Your task to perform on an android device: Open Google Chrome and open the bookmarks view Image 0: 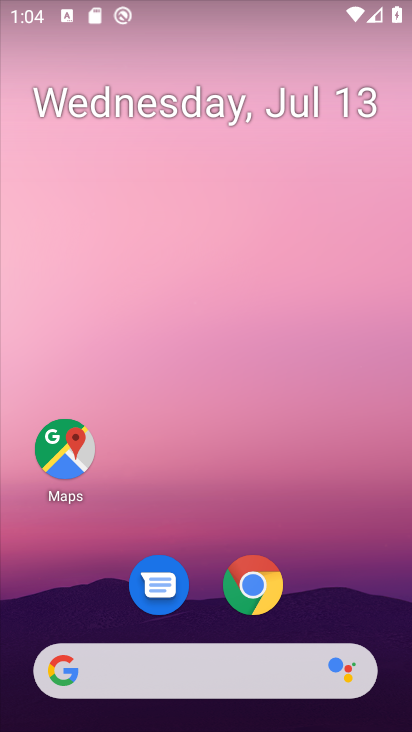
Step 0: click (246, 597)
Your task to perform on an android device: Open Google Chrome and open the bookmarks view Image 1: 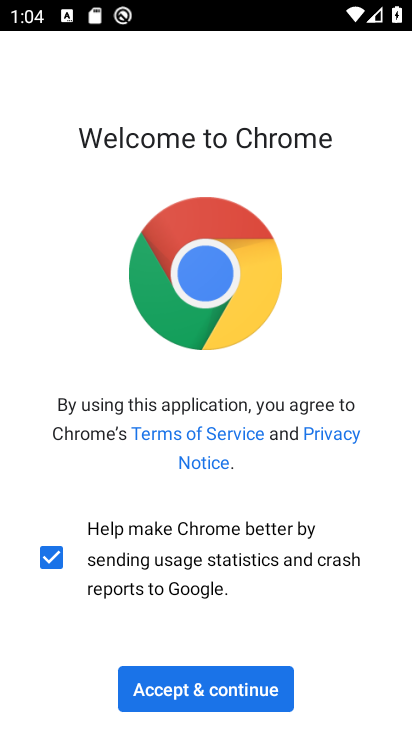
Step 1: click (250, 687)
Your task to perform on an android device: Open Google Chrome and open the bookmarks view Image 2: 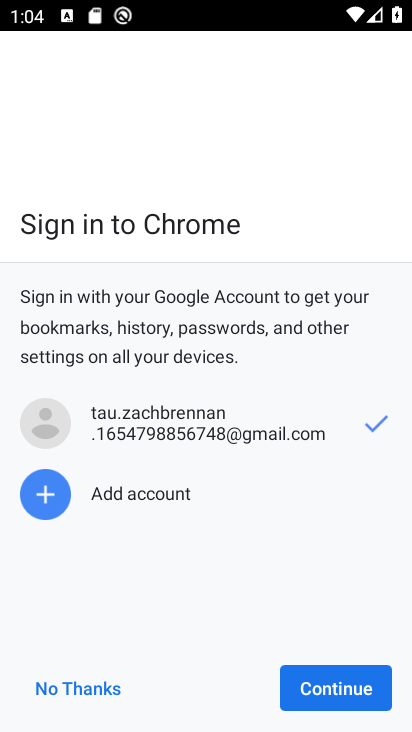
Step 2: click (303, 684)
Your task to perform on an android device: Open Google Chrome and open the bookmarks view Image 3: 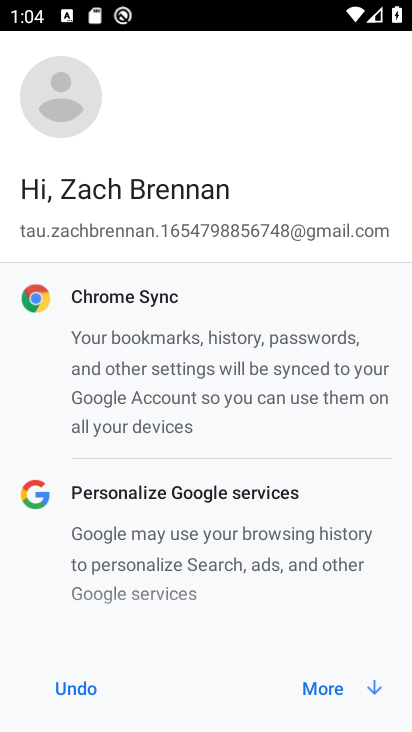
Step 3: click (316, 684)
Your task to perform on an android device: Open Google Chrome and open the bookmarks view Image 4: 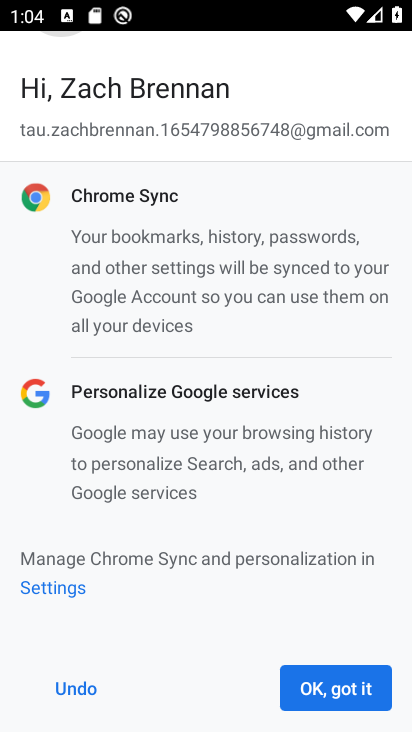
Step 4: click (316, 684)
Your task to perform on an android device: Open Google Chrome and open the bookmarks view Image 5: 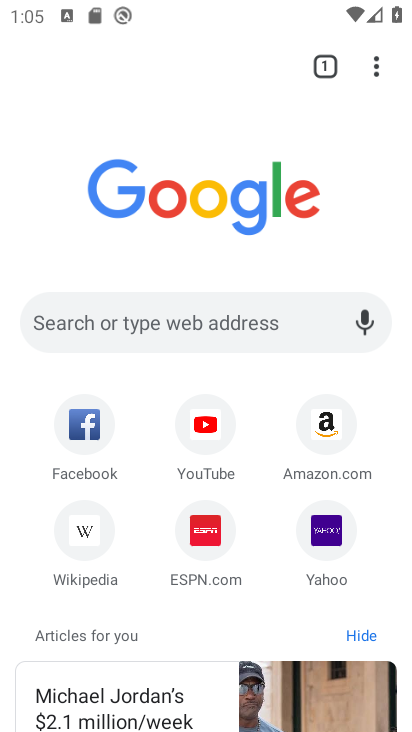
Step 5: click (374, 64)
Your task to perform on an android device: Open Google Chrome and open the bookmarks view Image 6: 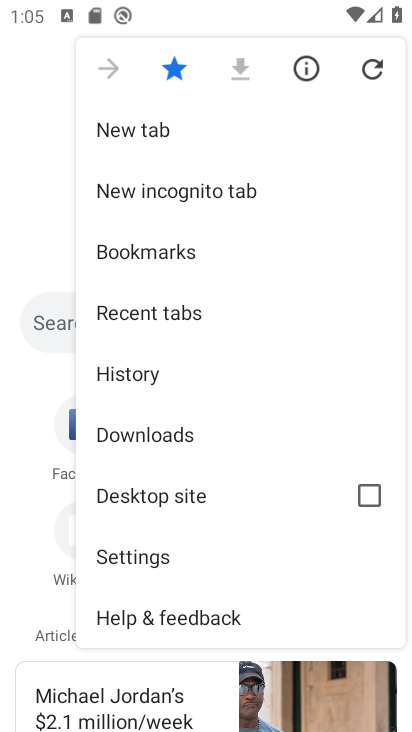
Step 6: click (194, 257)
Your task to perform on an android device: Open Google Chrome and open the bookmarks view Image 7: 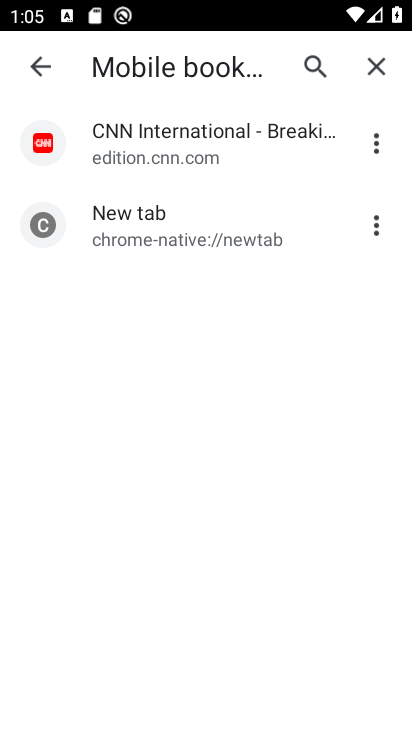
Step 7: click (179, 150)
Your task to perform on an android device: Open Google Chrome and open the bookmarks view Image 8: 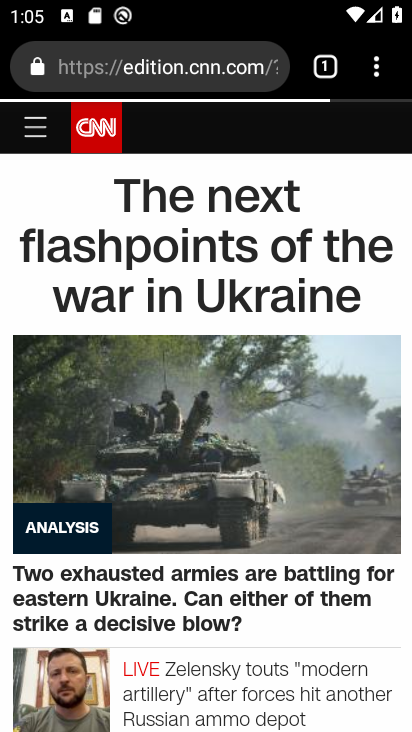
Step 8: task complete